Your task to perform on an android device: View the shopping cart on walmart.com. Search for duracell triple a on walmart.com, select the first entry, add it to the cart, then select checkout. Image 0: 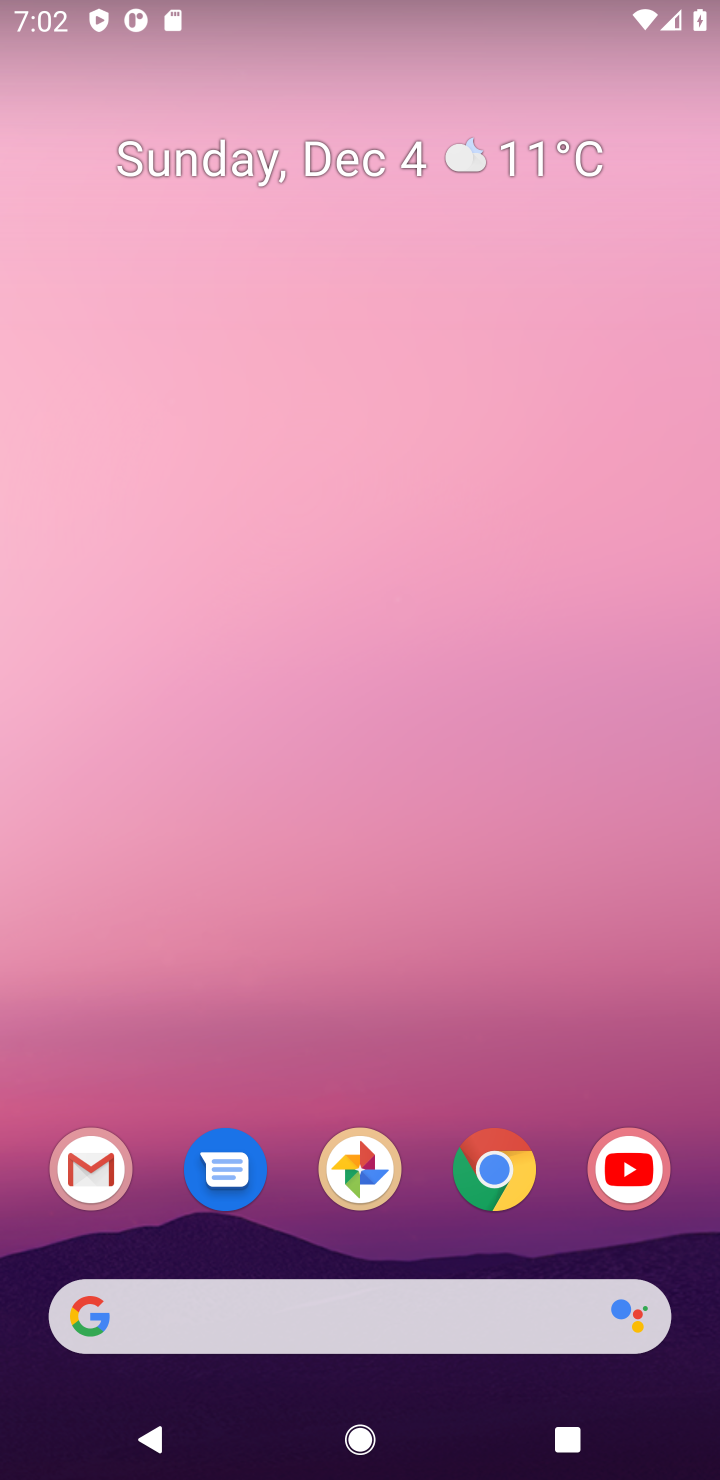
Step 0: drag from (452, 1403) to (366, 224)
Your task to perform on an android device: View the shopping cart on walmart.com. Search for duracell triple a on walmart.com, select the first entry, add it to the cart, then select checkout. Image 1: 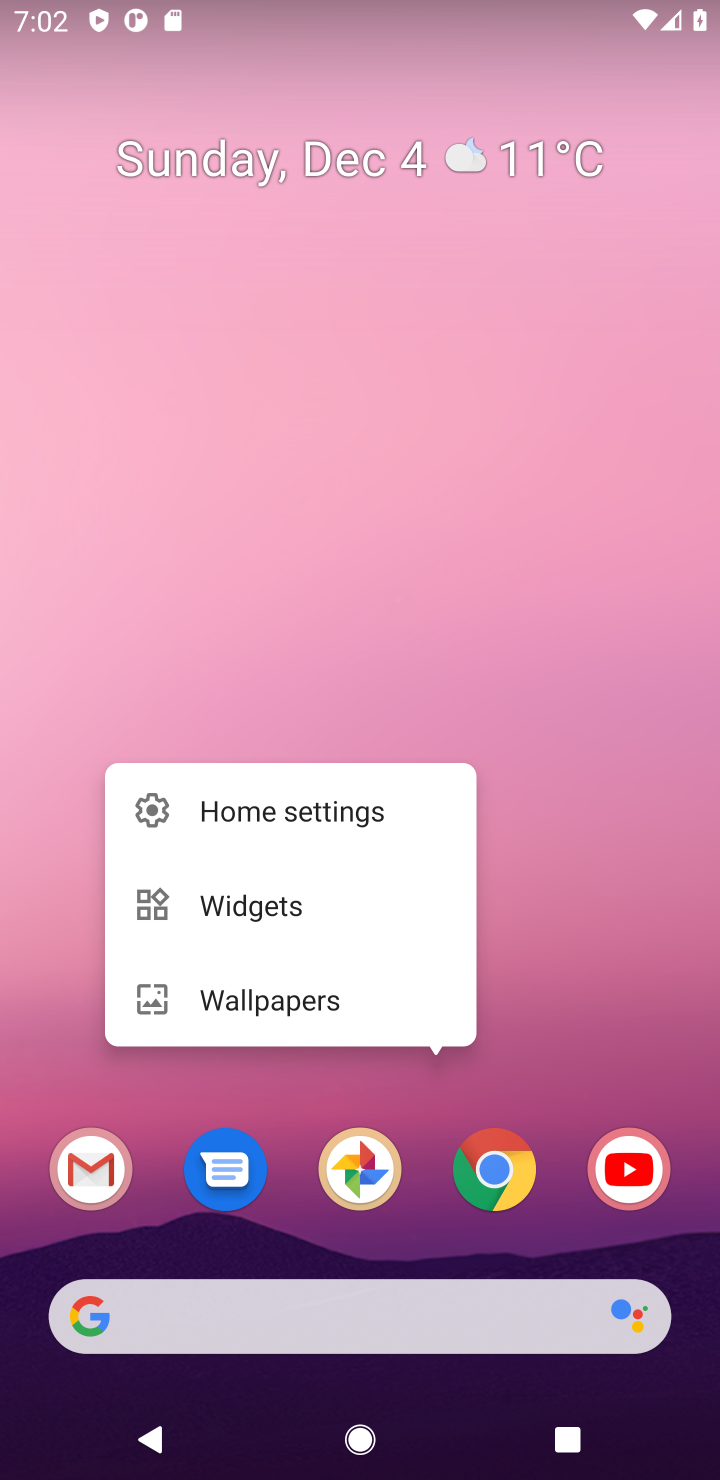
Step 1: click (472, 1399)
Your task to perform on an android device: View the shopping cart on walmart.com. Search for duracell triple a on walmart.com, select the first entry, add it to the cart, then select checkout. Image 2: 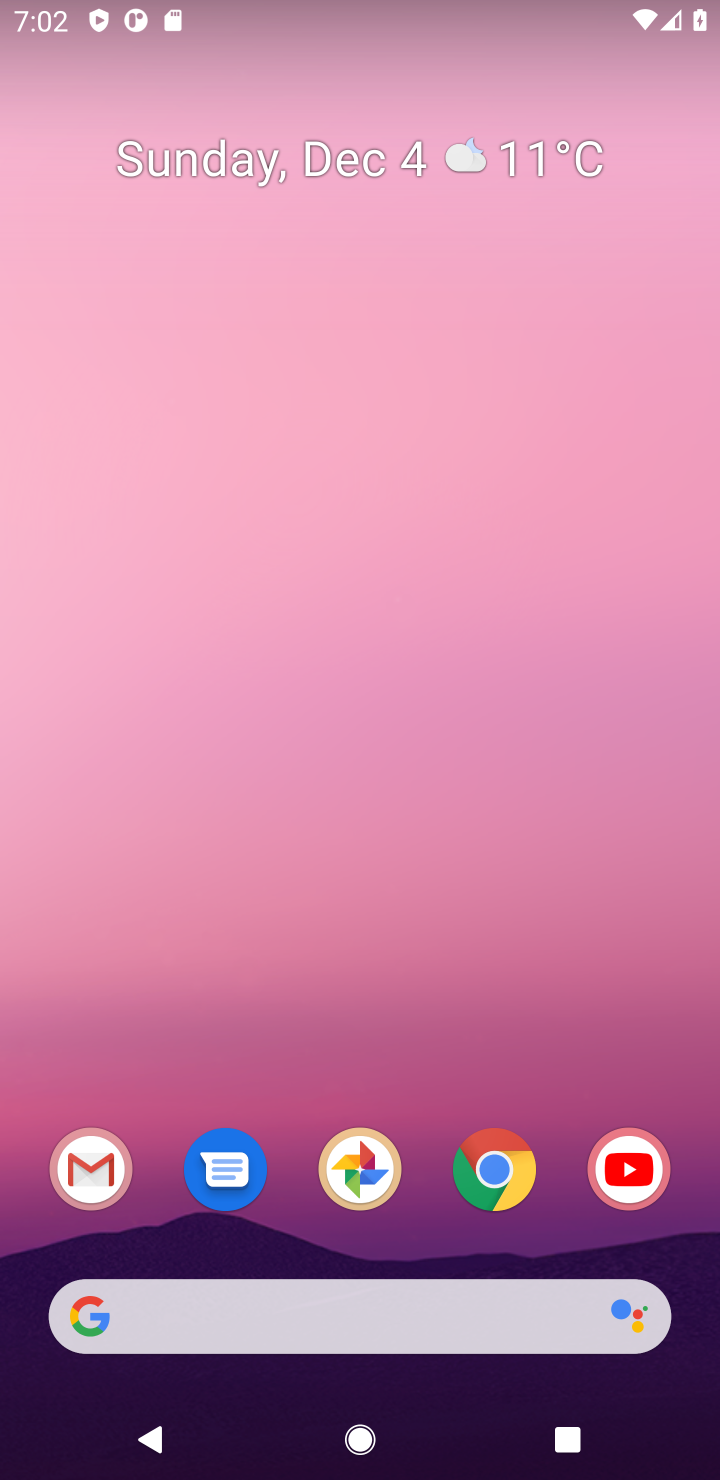
Step 2: drag from (465, 1406) to (548, 157)
Your task to perform on an android device: View the shopping cart on walmart.com. Search for duracell triple a on walmart.com, select the first entry, add it to the cart, then select checkout. Image 3: 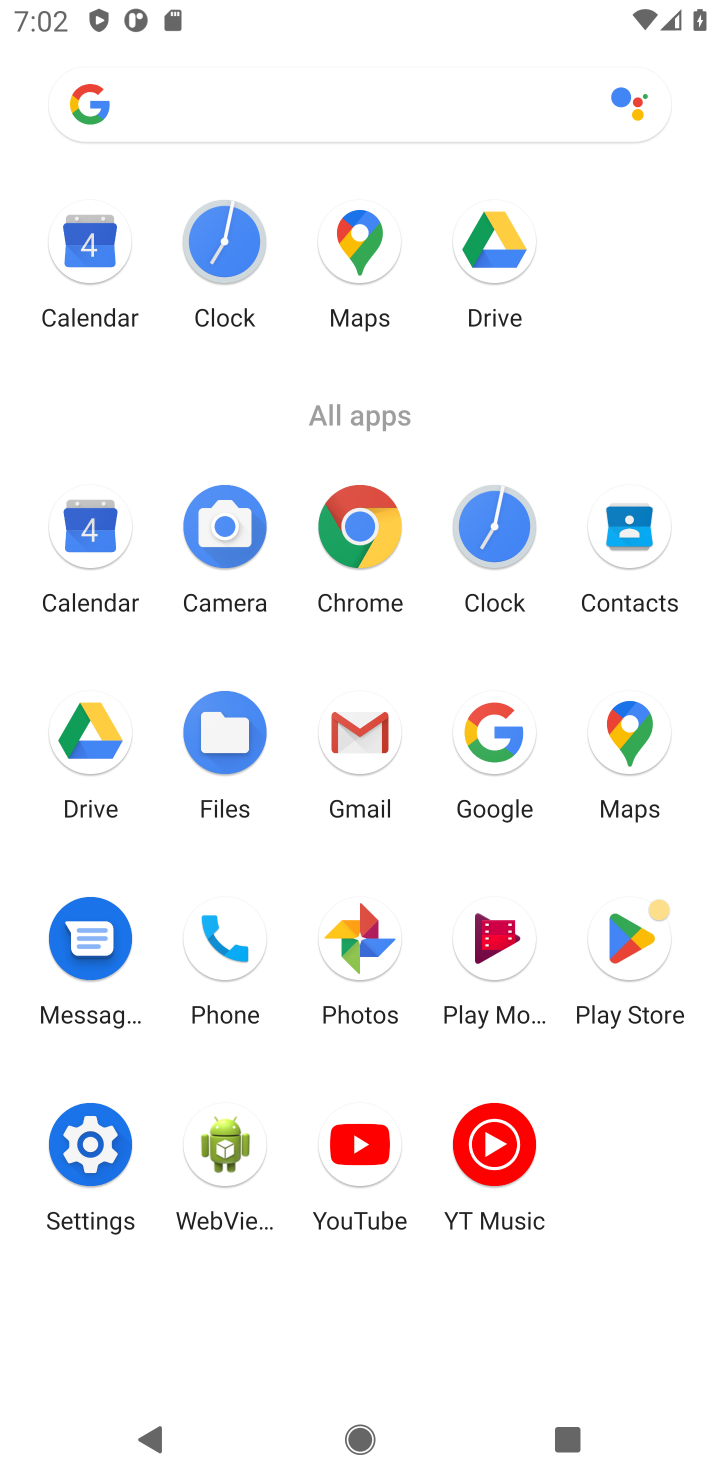
Step 3: click (355, 542)
Your task to perform on an android device: View the shopping cart on walmart.com. Search for duracell triple a on walmart.com, select the first entry, add it to the cart, then select checkout. Image 4: 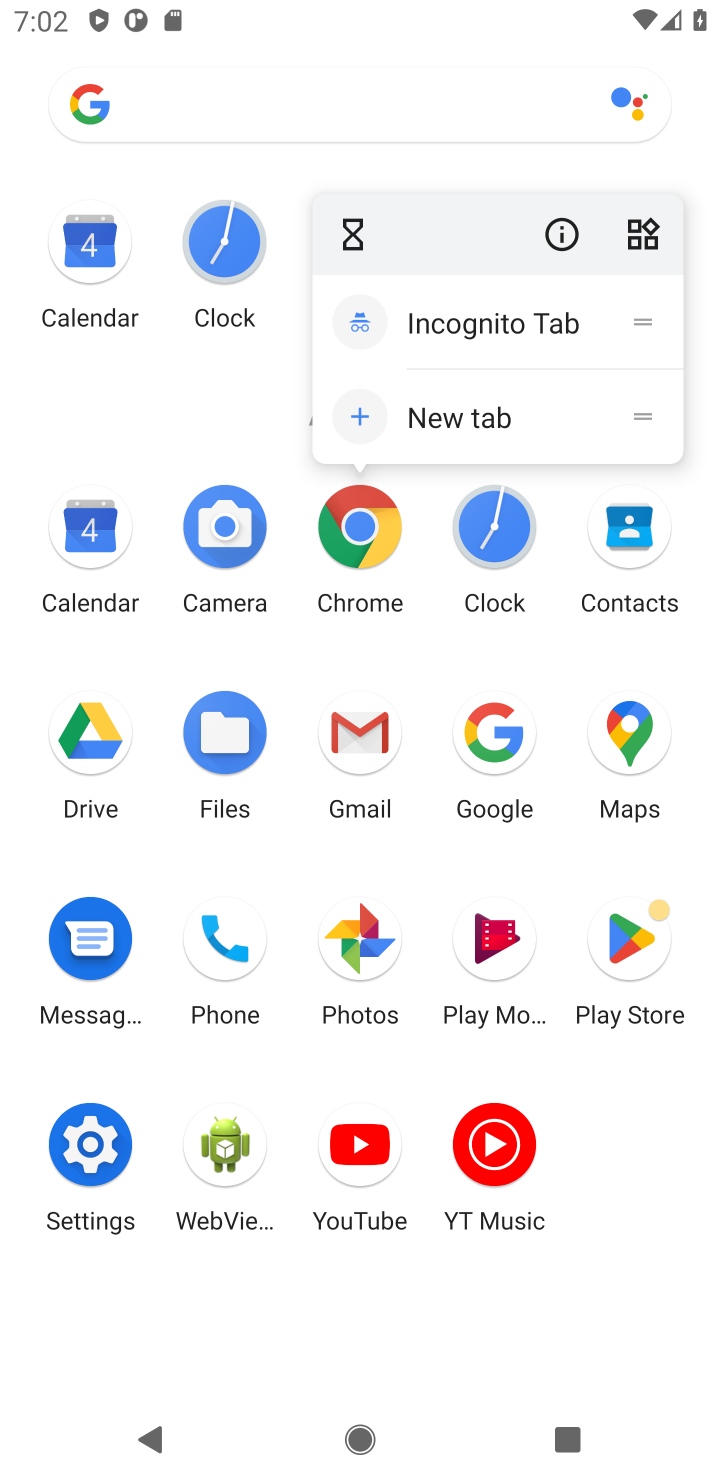
Step 4: click (368, 540)
Your task to perform on an android device: View the shopping cart on walmart.com. Search for duracell triple a on walmart.com, select the first entry, add it to the cart, then select checkout. Image 5: 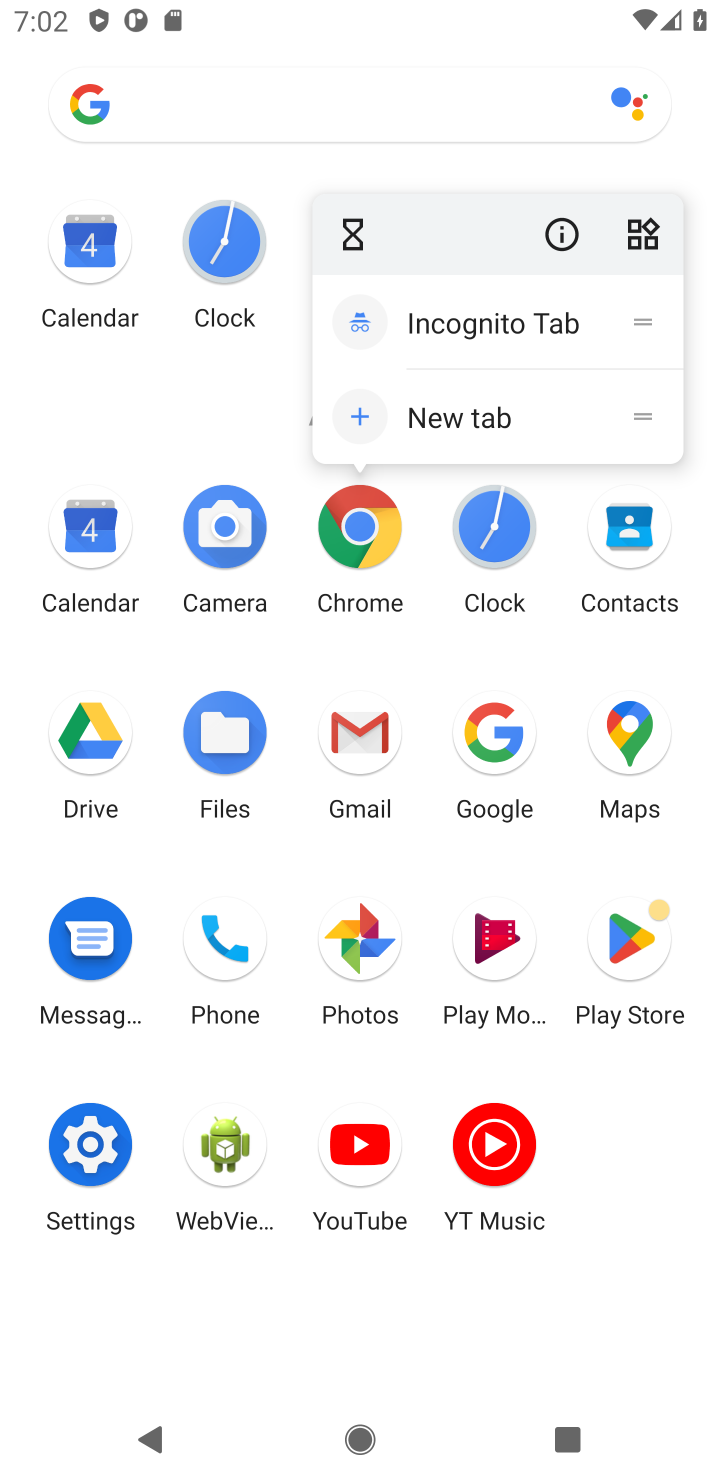
Step 5: click (364, 513)
Your task to perform on an android device: View the shopping cart on walmart.com. Search for duracell triple a on walmart.com, select the first entry, add it to the cart, then select checkout. Image 6: 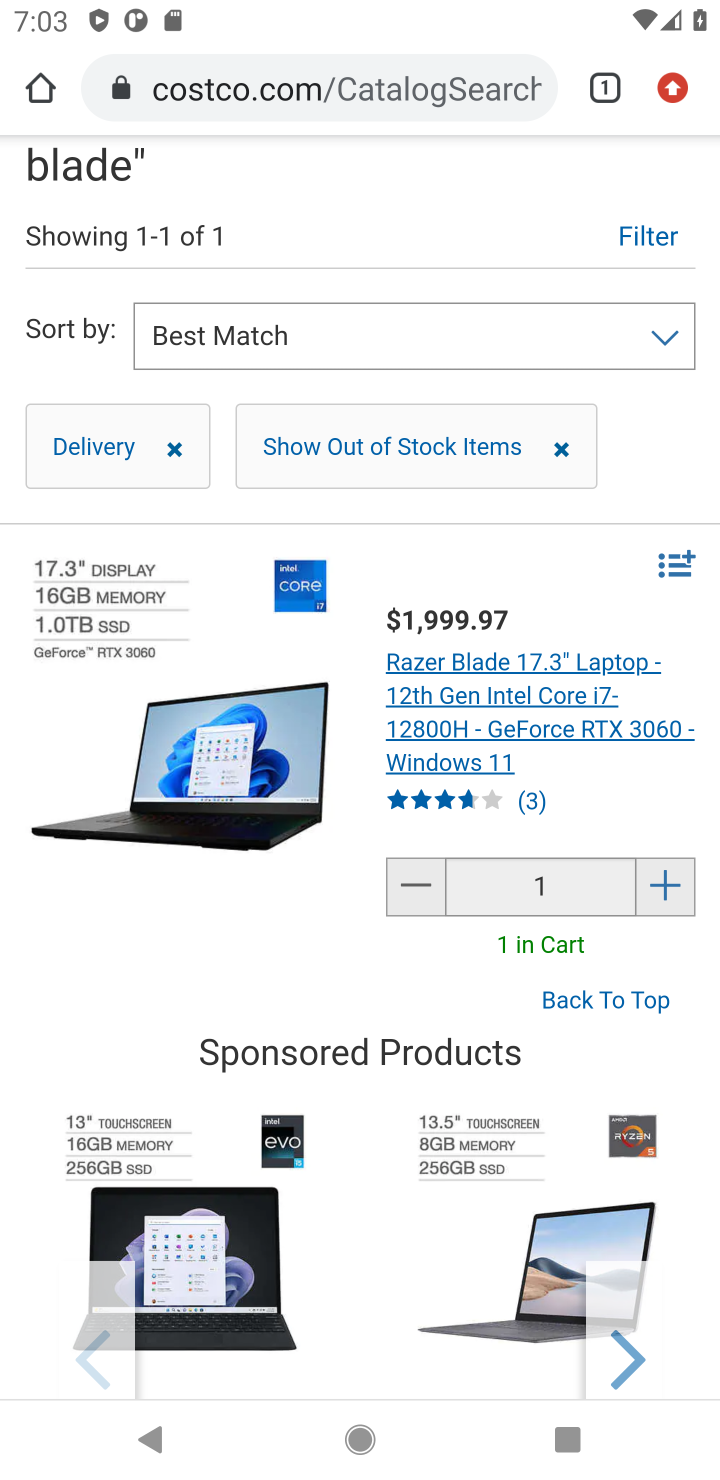
Step 6: click (173, 84)
Your task to perform on an android device: View the shopping cart on walmart.com. Search for duracell triple a on walmart.com, select the first entry, add it to the cart, then select checkout. Image 7: 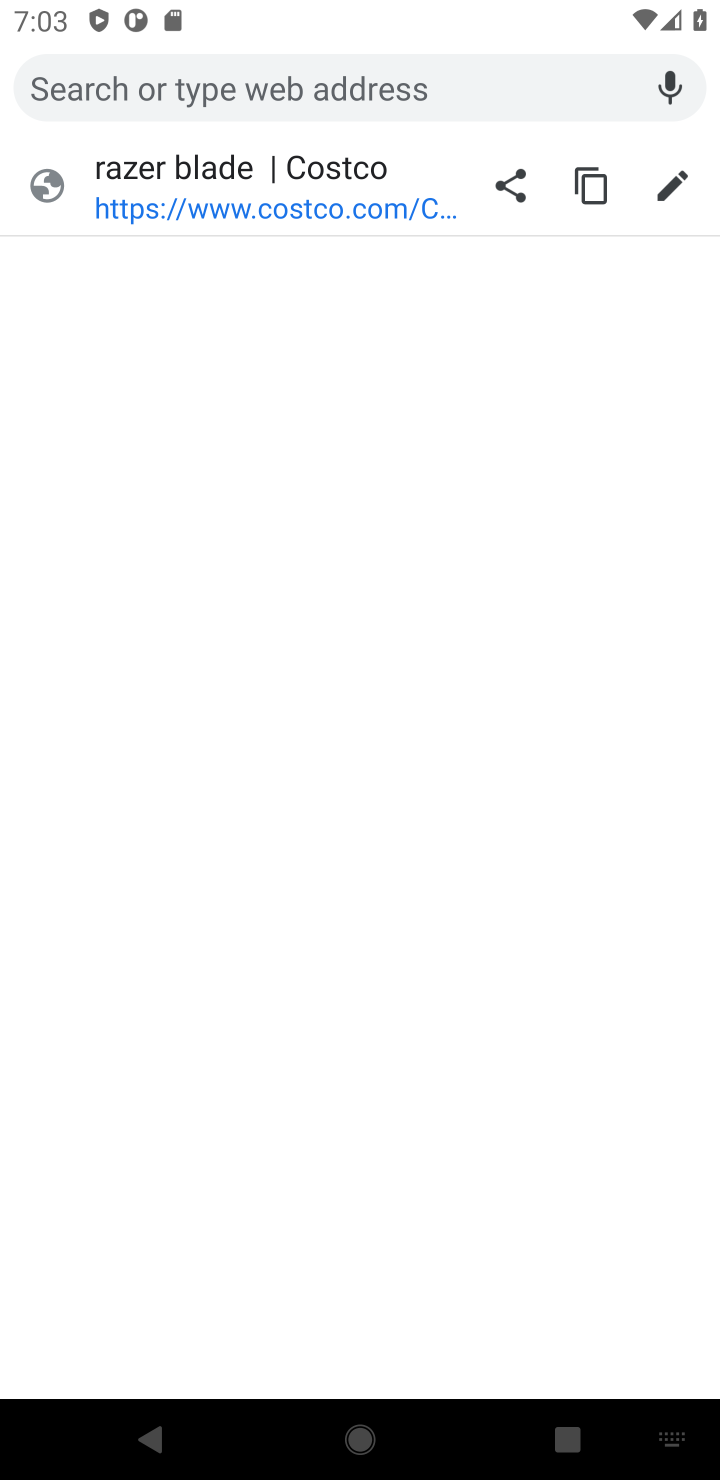
Step 7: type "walmart.com"
Your task to perform on an android device: View the shopping cart on walmart.com. Search for duracell triple a on walmart.com, select the first entry, add it to the cart, then select checkout. Image 8: 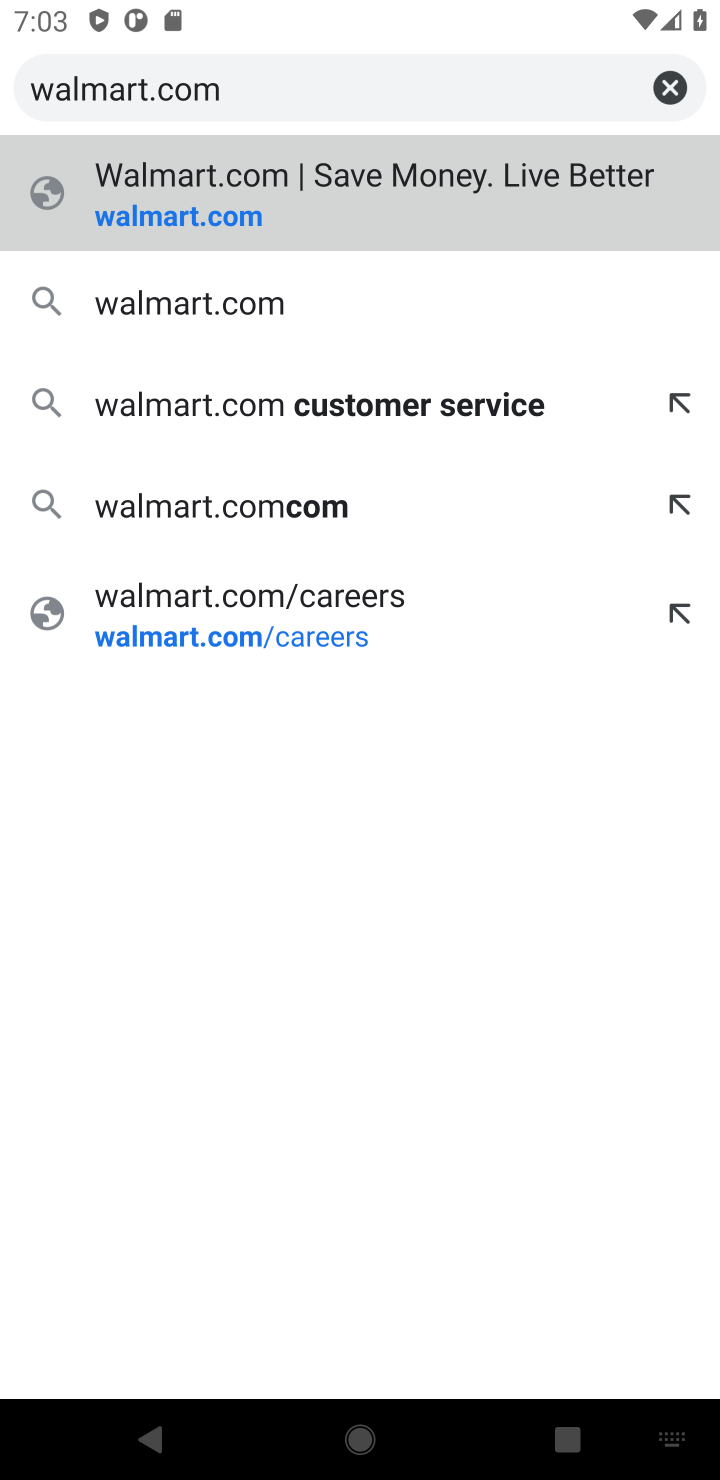
Step 8: type ""
Your task to perform on an android device: View the shopping cart on walmart.com. Search for duracell triple a on walmart.com, select the first entry, add it to the cart, then select checkout. Image 9: 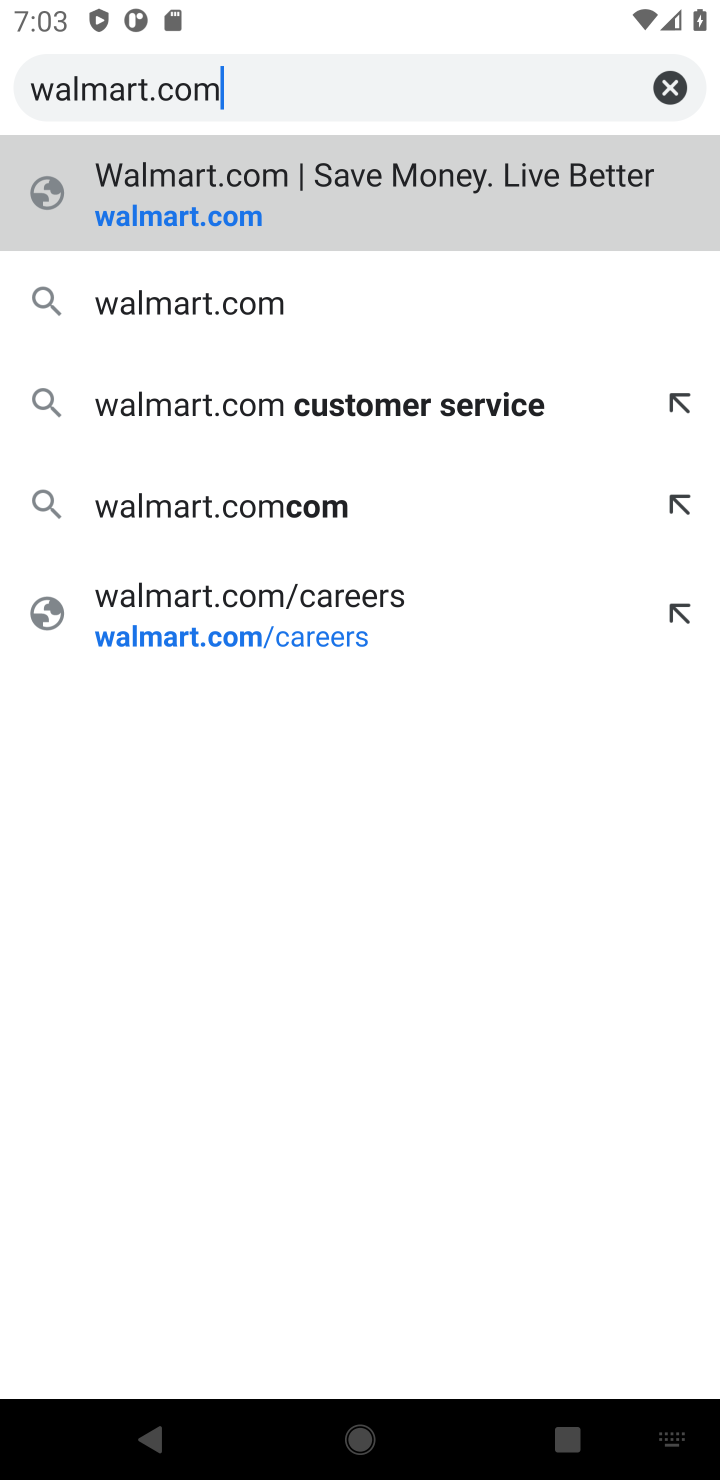
Step 9: click (155, 215)
Your task to perform on an android device: View the shopping cart on walmart.com. Search for duracell triple a on walmart.com, select the first entry, add it to the cart, then select checkout. Image 10: 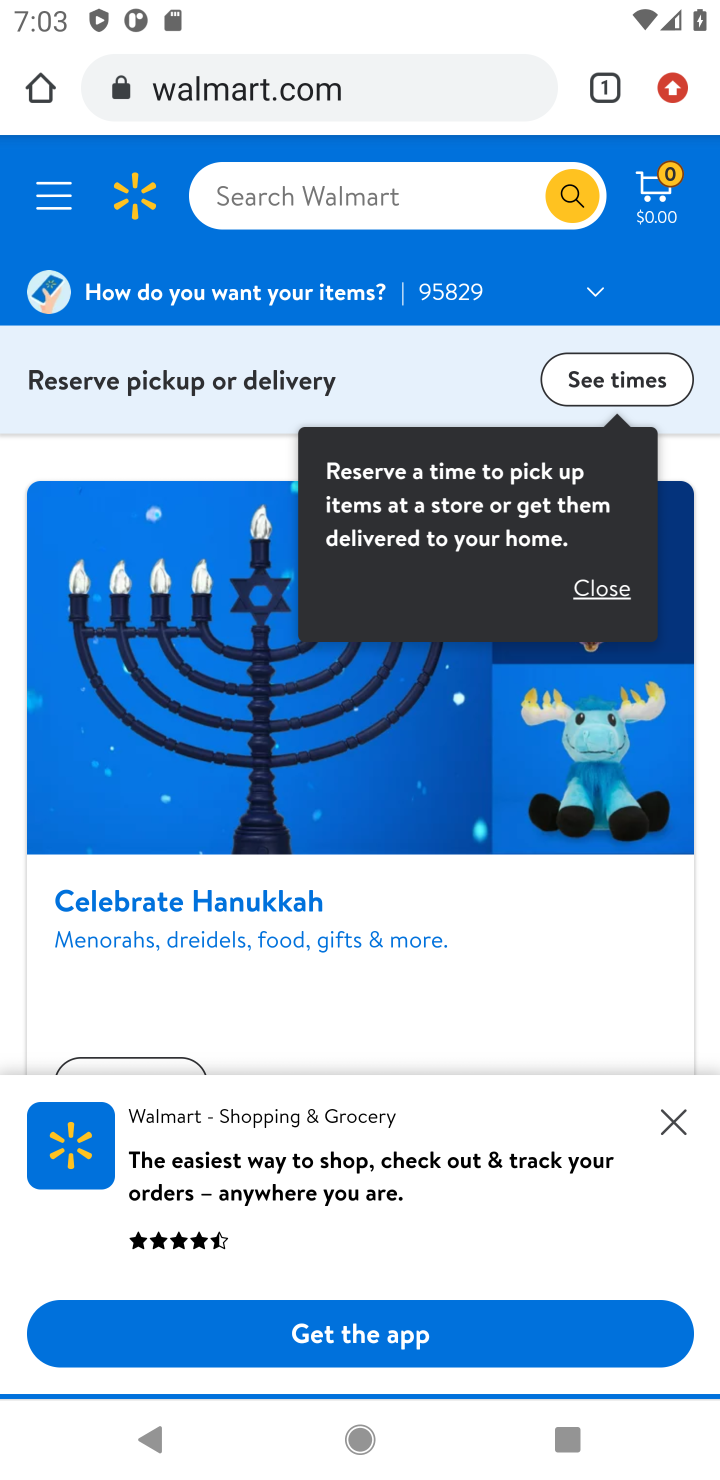
Step 10: click (648, 180)
Your task to perform on an android device: View the shopping cart on walmart.com. Search for duracell triple a on walmart.com, select the first entry, add it to the cart, then select checkout. Image 11: 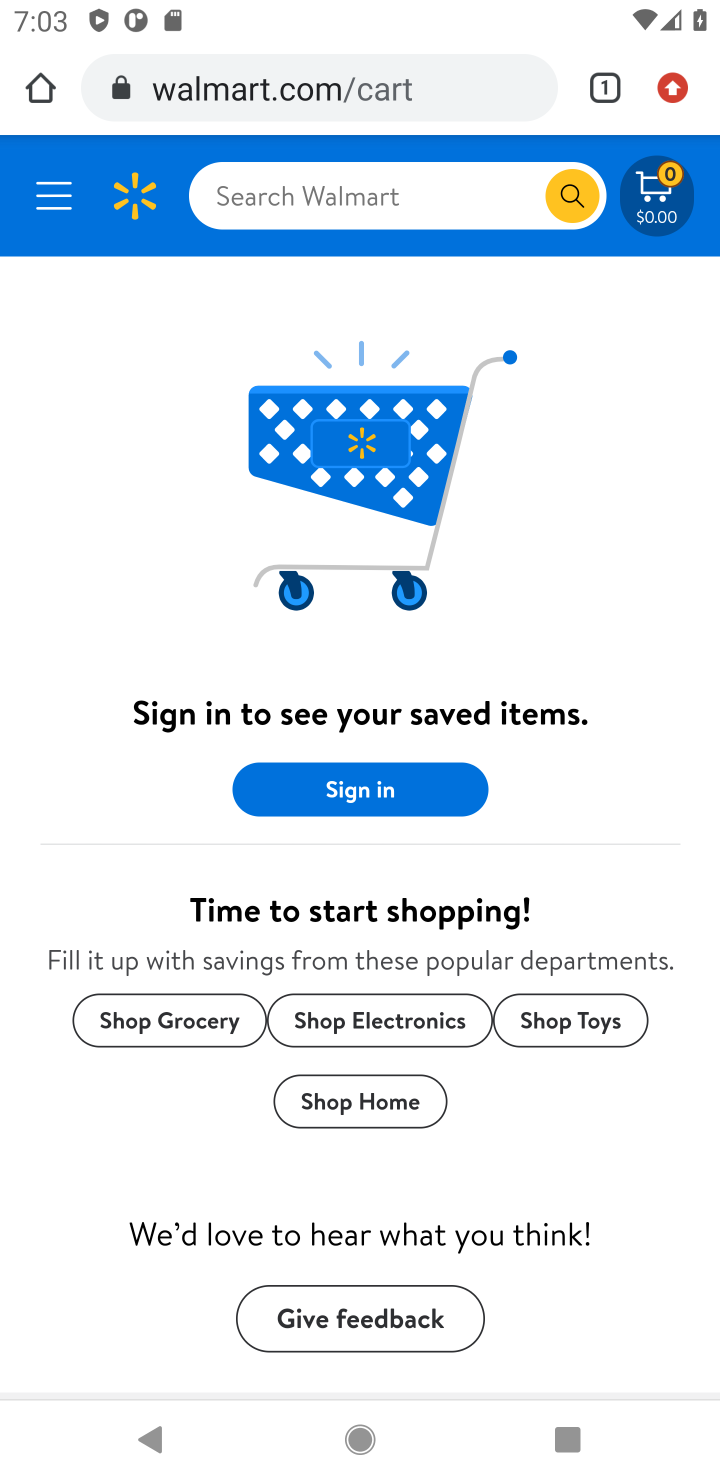
Step 11: click (404, 180)
Your task to perform on an android device: View the shopping cart on walmart.com. Search for duracell triple a on walmart.com, select the first entry, add it to the cart, then select checkout. Image 12: 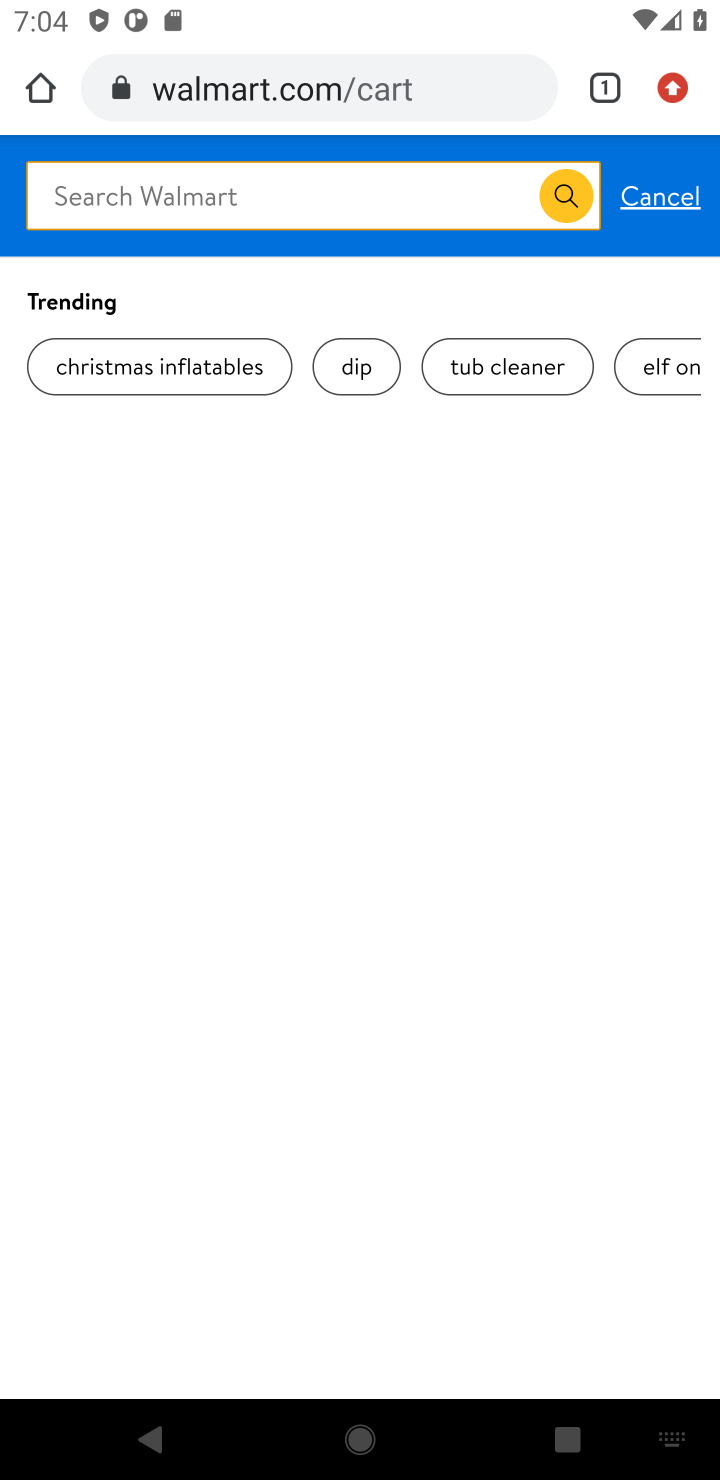
Step 12: type "duracell triple a"
Your task to perform on an android device: View the shopping cart on walmart.com. Search for duracell triple a on walmart.com, select the first entry, add it to the cart, then select checkout. Image 13: 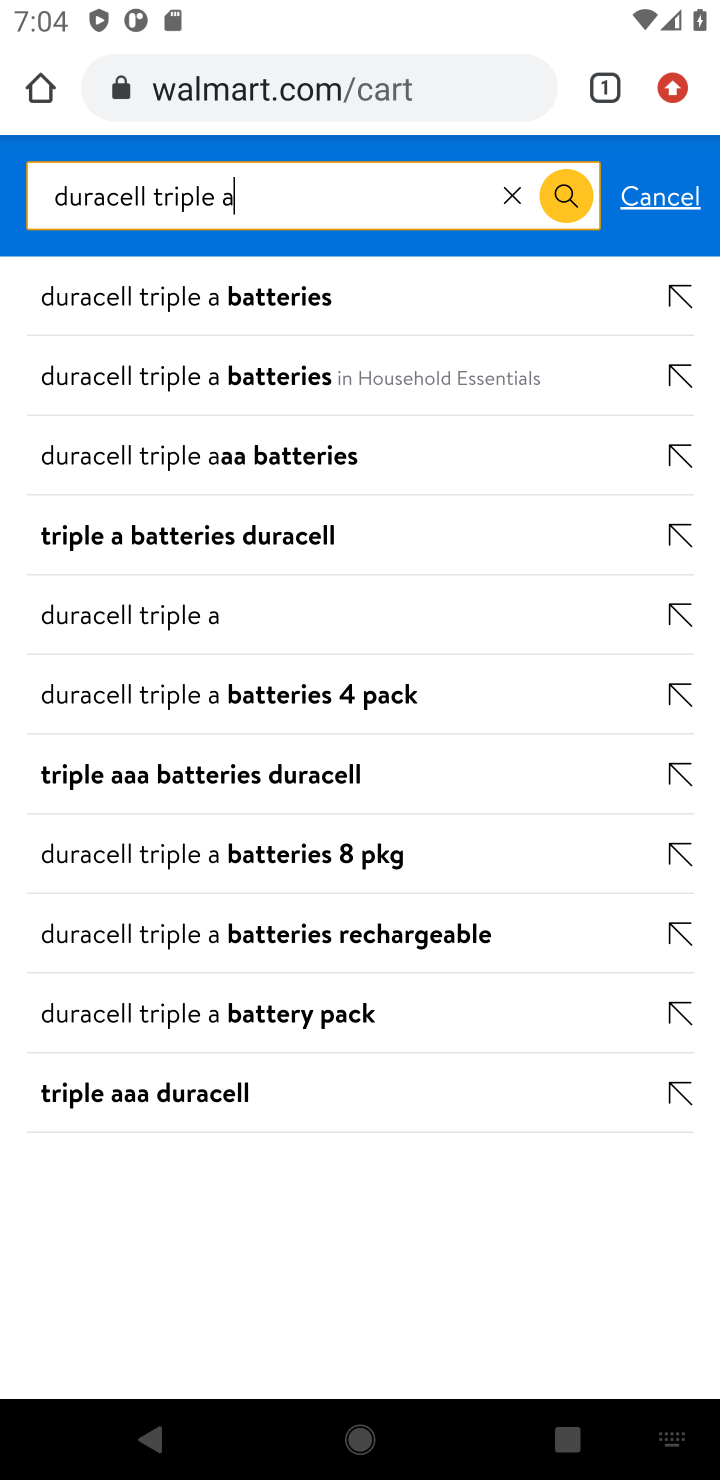
Step 13: type ""
Your task to perform on an android device: View the shopping cart on walmart.com. Search for duracell triple a on walmart.com, select the first entry, add it to the cart, then select checkout. Image 14: 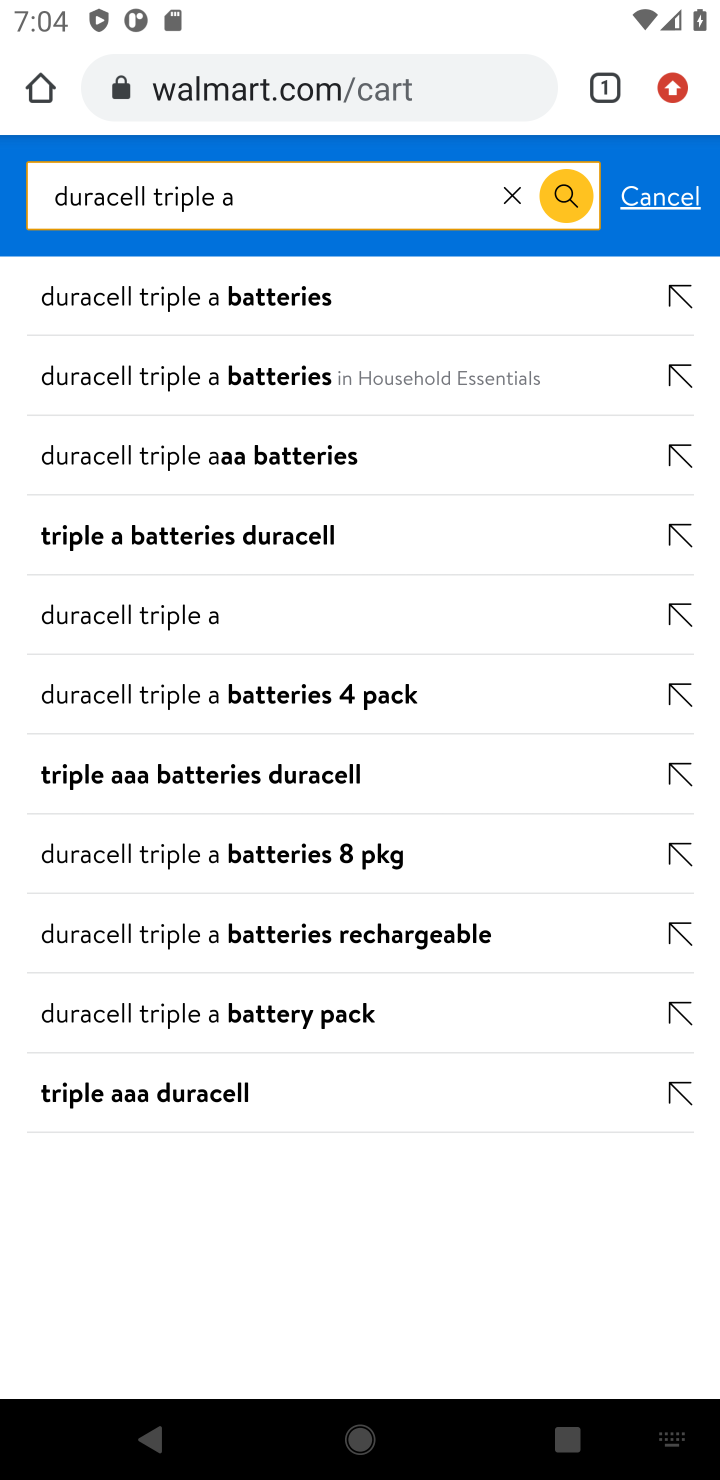
Step 14: click (138, 613)
Your task to perform on an android device: View the shopping cart on walmart.com. Search for duracell triple a on walmart.com, select the first entry, add it to the cart, then select checkout. Image 15: 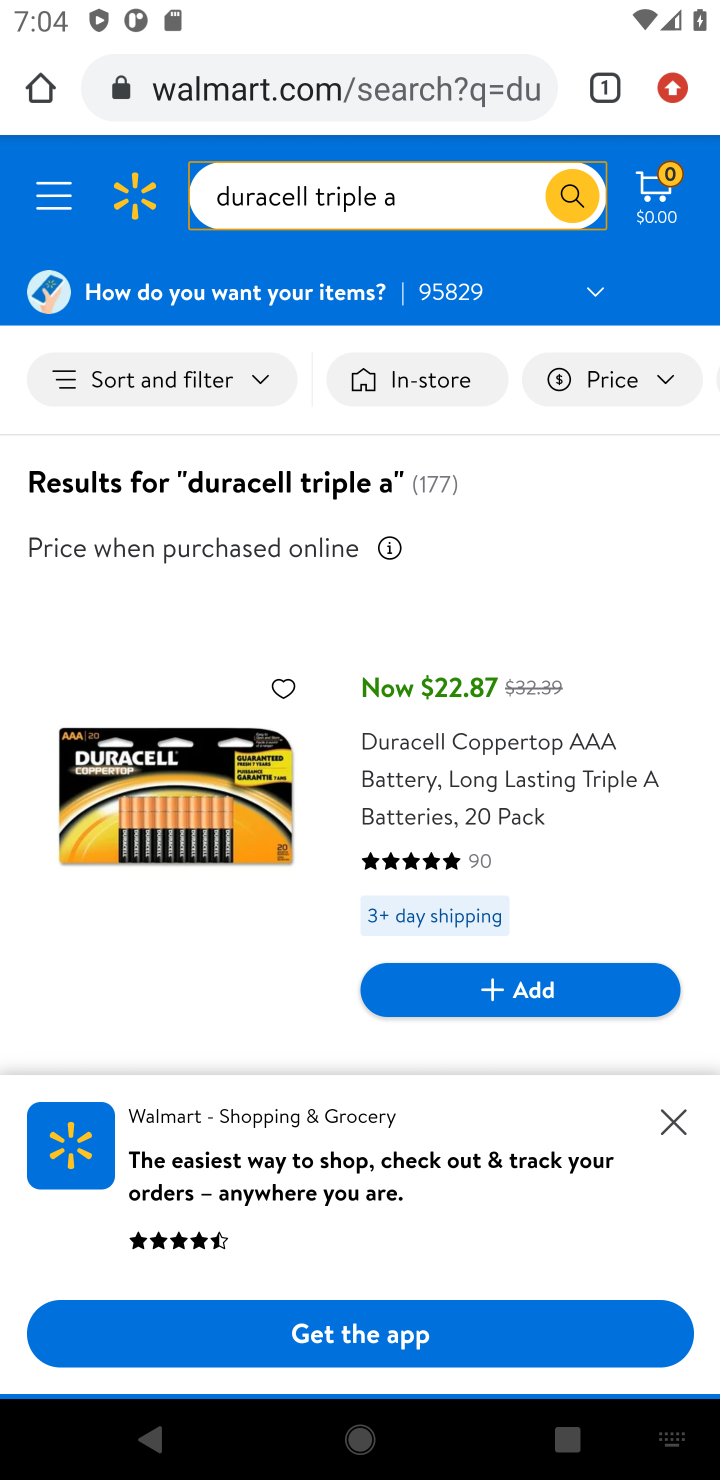
Step 15: drag from (580, 874) to (547, 606)
Your task to perform on an android device: View the shopping cart on walmart.com. Search for duracell triple a on walmart.com, select the first entry, add it to the cart, then select checkout. Image 16: 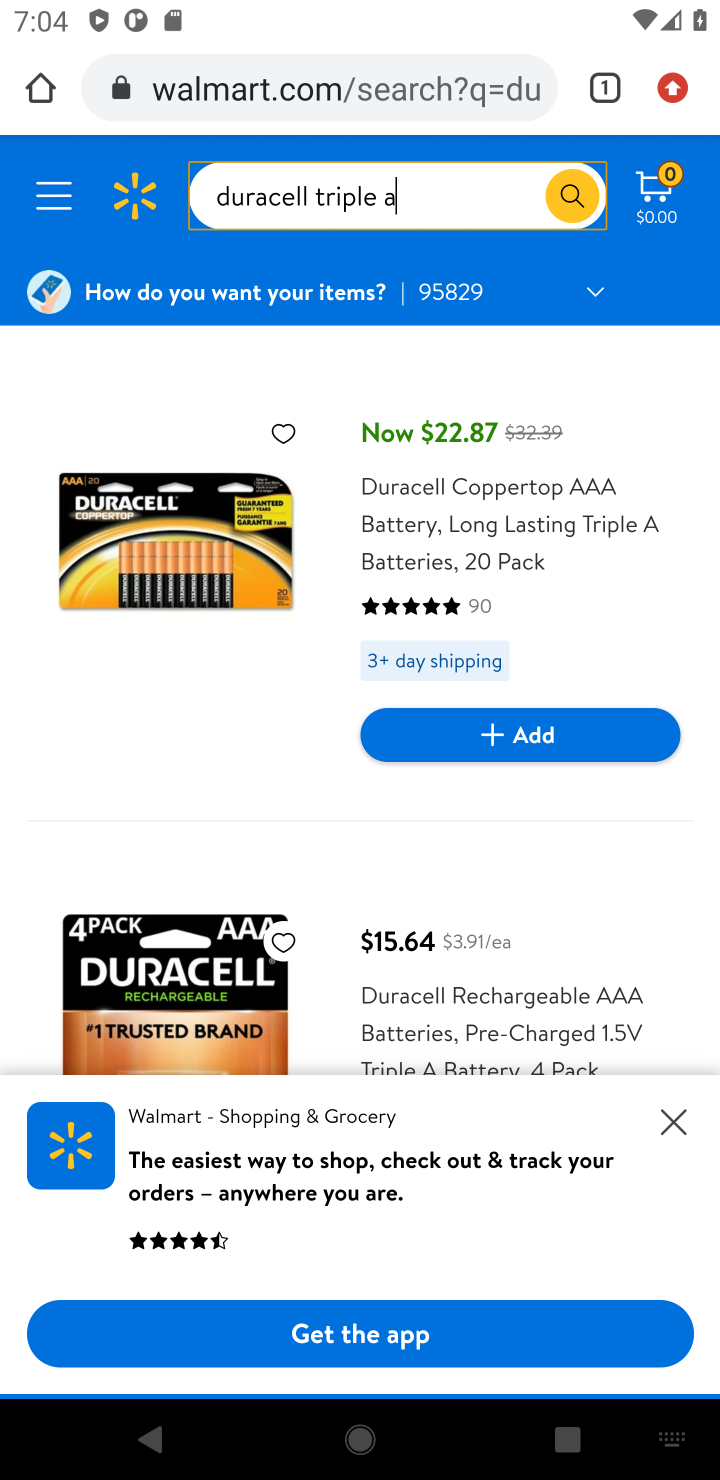
Step 16: click (519, 730)
Your task to perform on an android device: View the shopping cart on walmart.com. Search for duracell triple a on walmart.com, select the first entry, add it to the cart, then select checkout. Image 17: 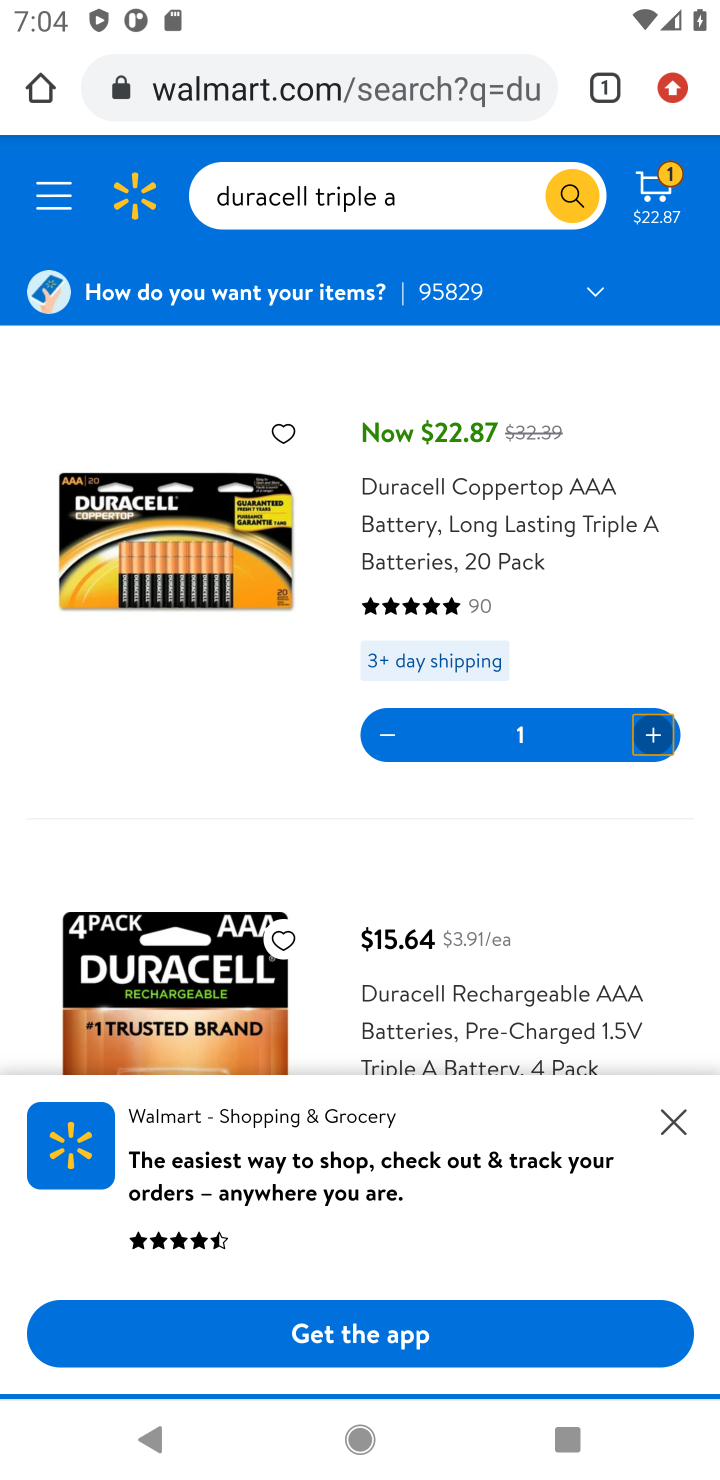
Step 17: click (268, 527)
Your task to perform on an android device: View the shopping cart on walmart.com. Search for duracell triple a on walmart.com, select the first entry, add it to the cart, then select checkout. Image 18: 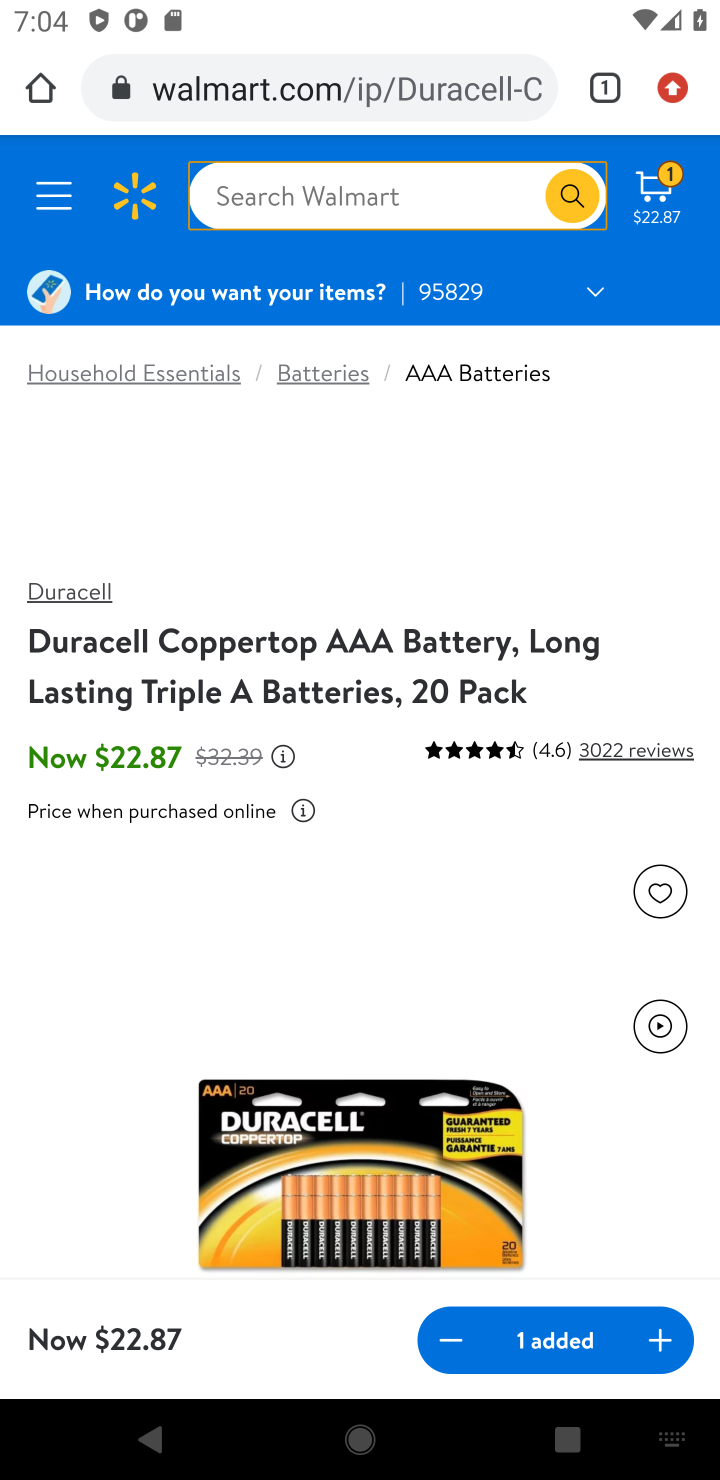
Step 18: drag from (496, 967) to (515, 236)
Your task to perform on an android device: View the shopping cart on walmart.com. Search for duracell triple a on walmart.com, select the first entry, add it to the cart, then select checkout. Image 19: 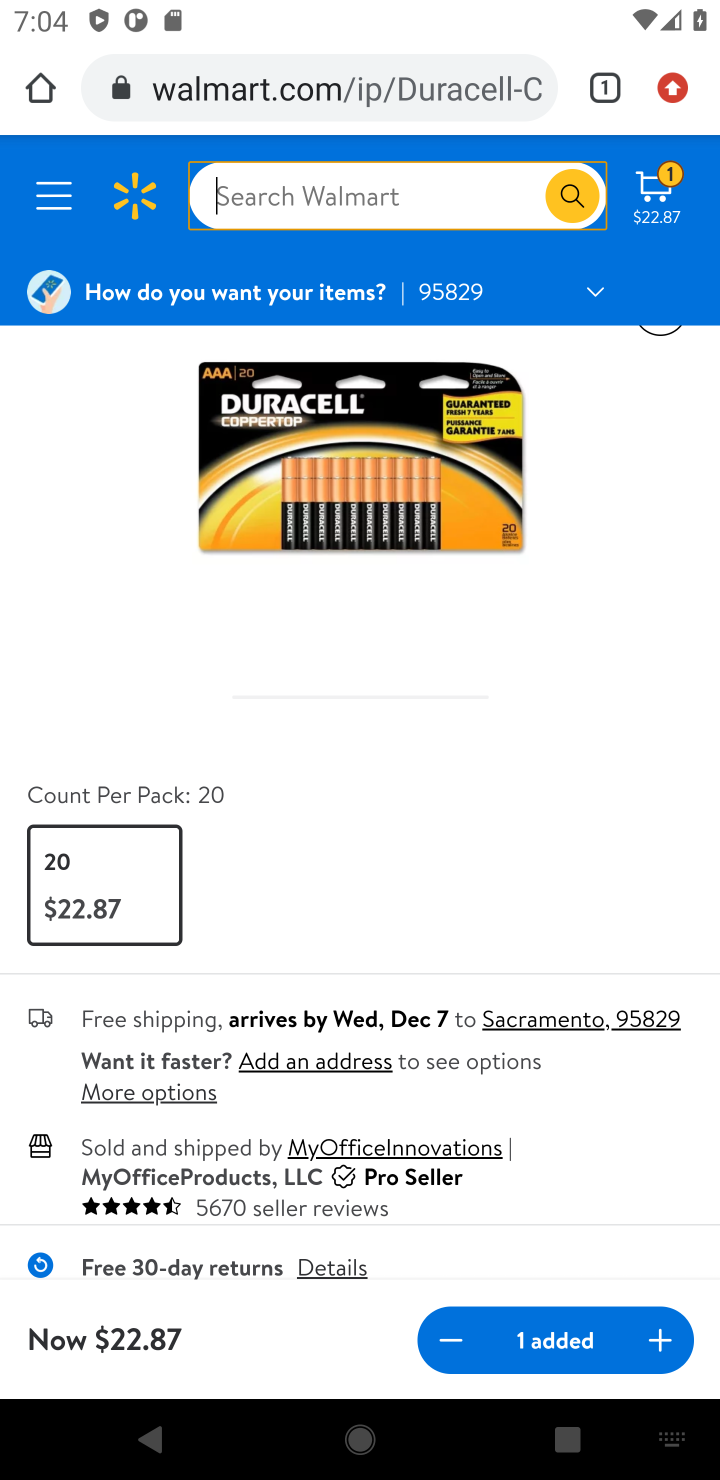
Step 19: drag from (326, 1162) to (393, 346)
Your task to perform on an android device: View the shopping cart on walmart.com. Search for duracell triple a on walmart.com, select the first entry, add it to the cart, then select checkout. Image 20: 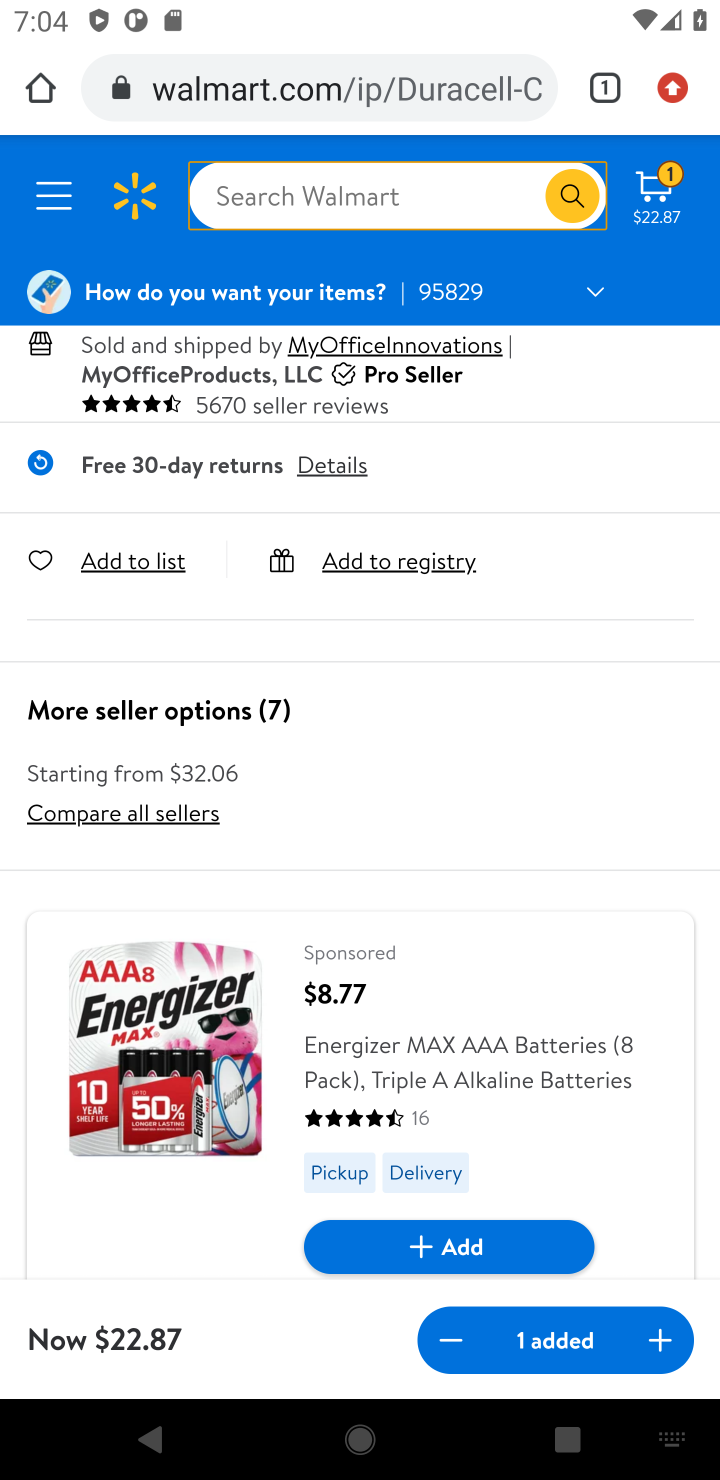
Step 20: drag from (414, 1070) to (444, 423)
Your task to perform on an android device: View the shopping cart on walmart.com. Search for duracell triple a on walmart.com, select the first entry, add it to the cart, then select checkout. Image 21: 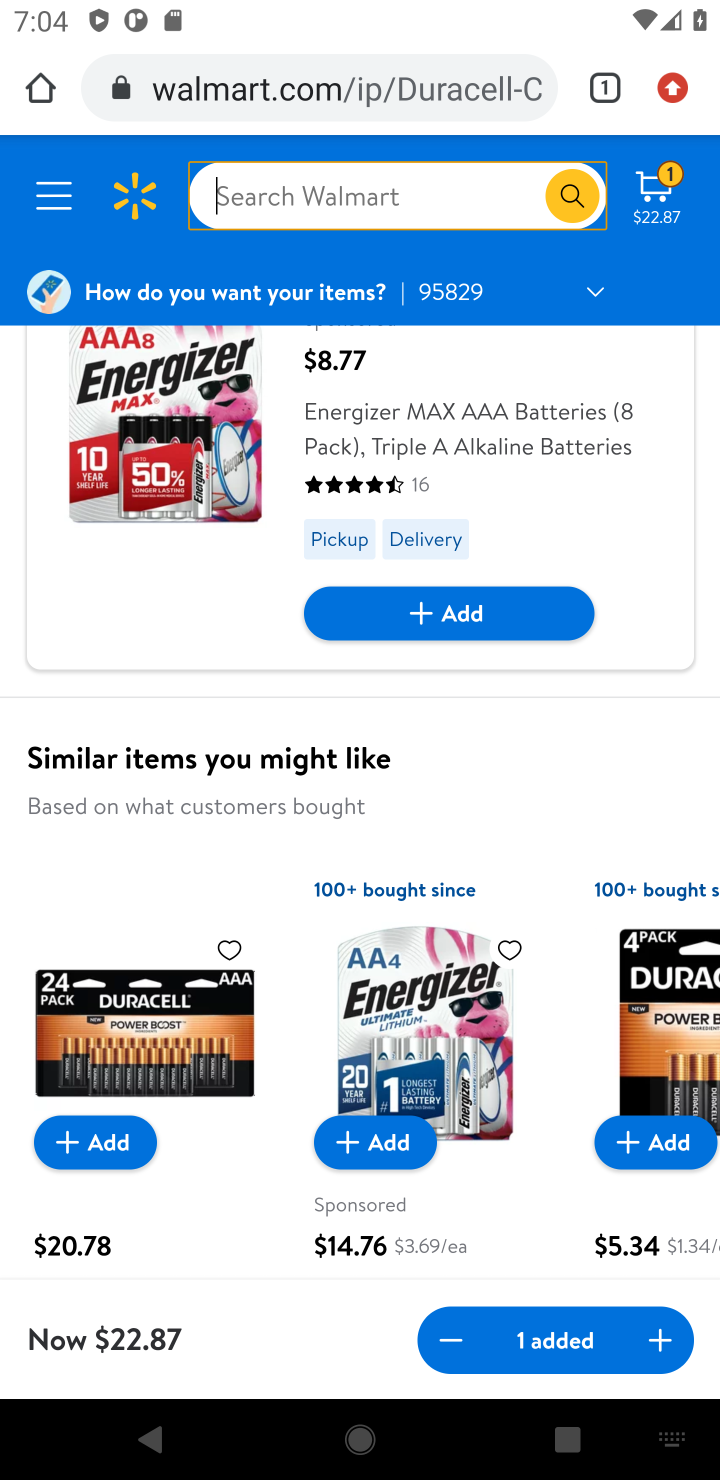
Step 21: click (656, 186)
Your task to perform on an android device: View the shopping cart on walmart.com. Search for duracell triple a on walmart.com, select the first entry, add it to the cart, then select checkout. Image 22: 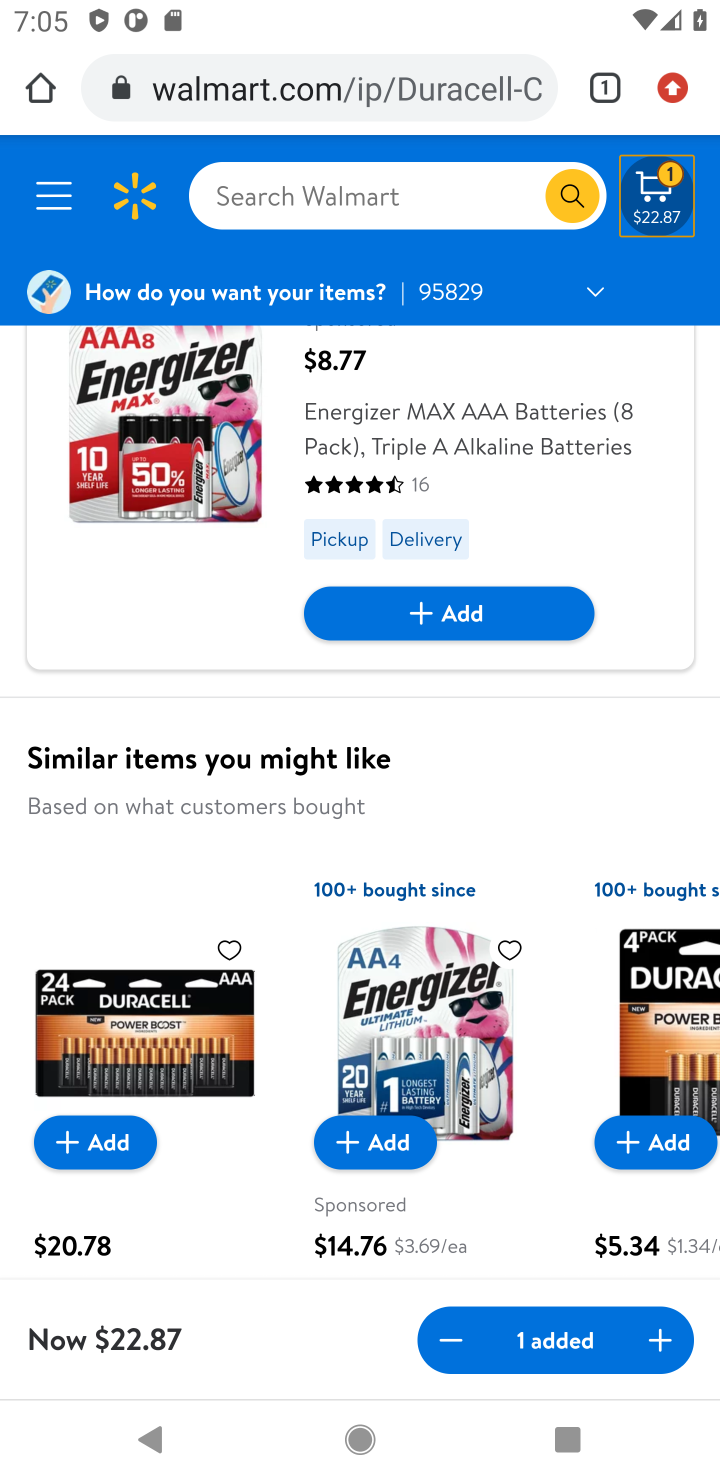
Step 22: click (663, 195)
Your task to perform on an android device: View the shopping cart on walmart.com. Search for duracell triple a on walmart.com, select the first entry, add it to the cart, then select checkout. Image 23: 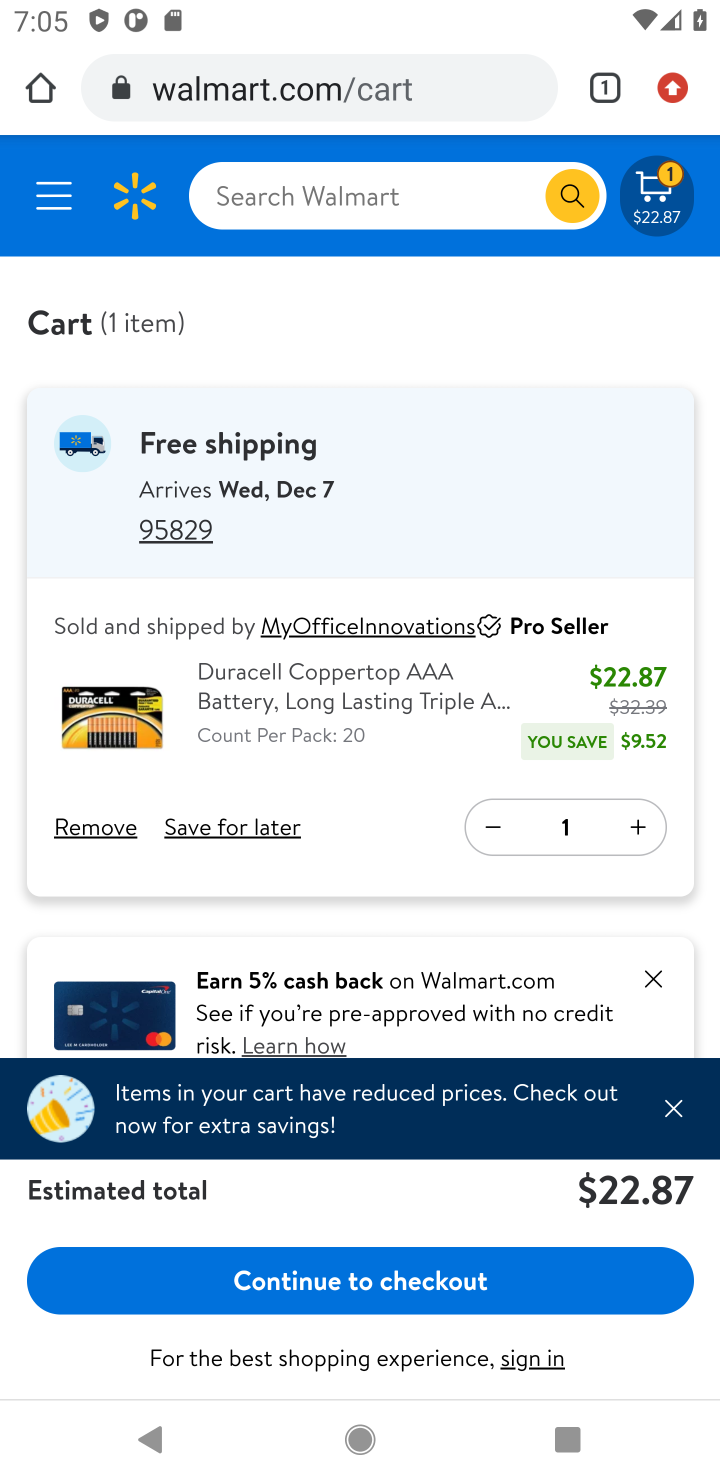
Step 23: task complete